Your task to perform on an android device: toggle pop-ups in chrome Image 0: 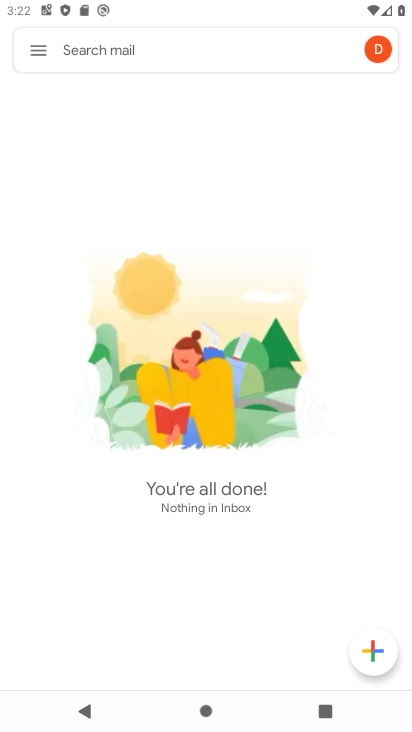
Step 0: press home button
Your task to perform on an android device: toggle pop-ups in chrome Image 1: 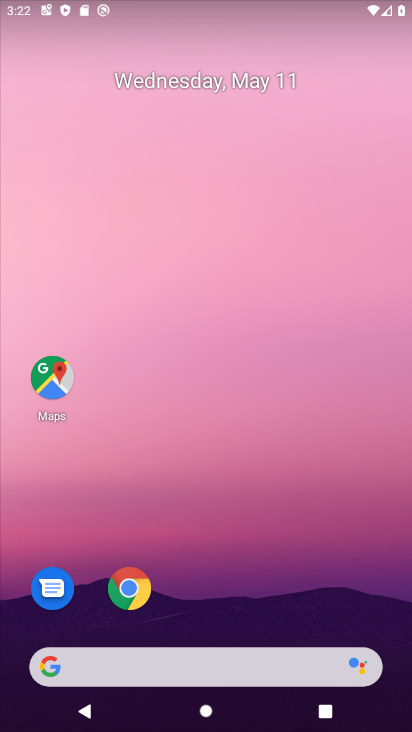
Step 1: click (118, 590)
Your task to perform on an android device: toggle pop-ups in chrome Image 2: 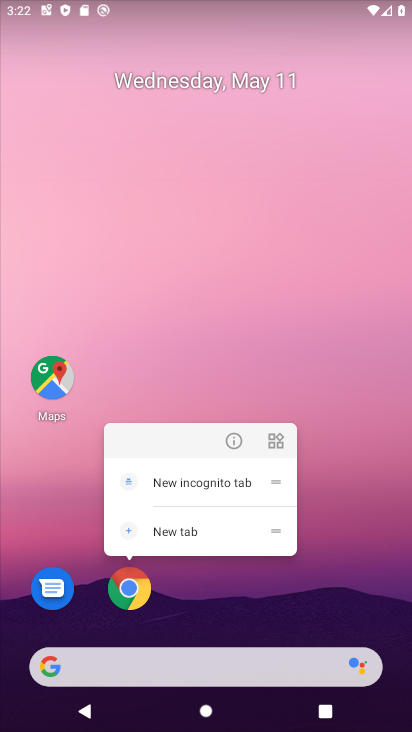
Step 2: click (133, 571)
Your task to perform on an android device: toggle pop-ups in chrome Image 3: 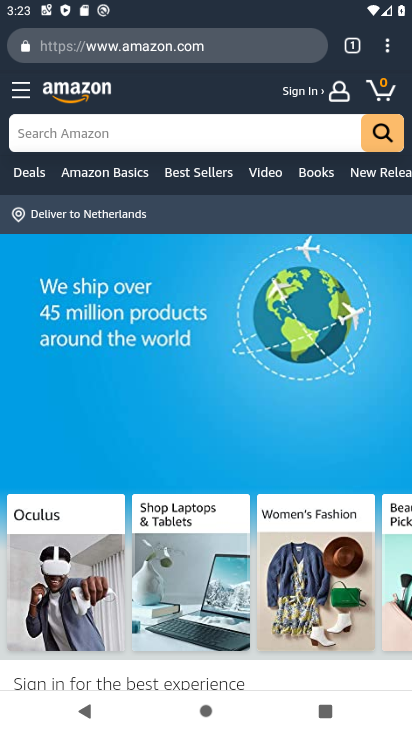
Step 3: click (395, 44)
Your task to perform on an android device: toggle pop-ups in chrome Image 4: 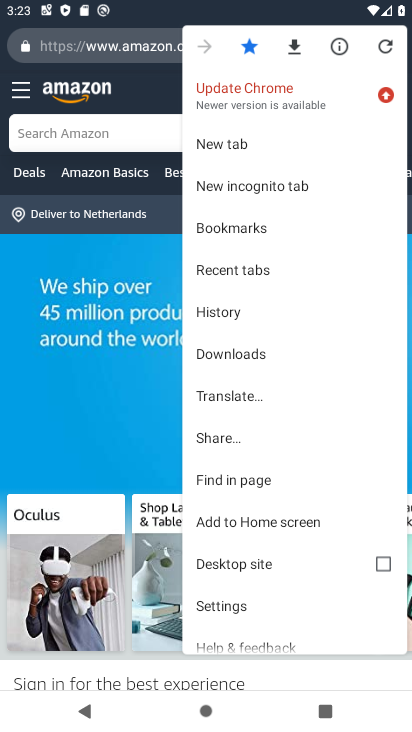
Step 4: click (223, 599)
Your task to perform on an android device: toggle pop-ups in chrome Image 5: 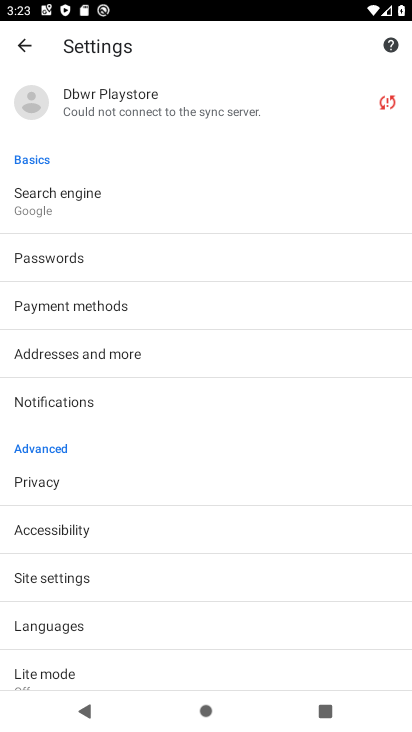
Step 5: click (47, 575)
Your task to perform on an android device: toggle pop-ups in chrome Image 6: 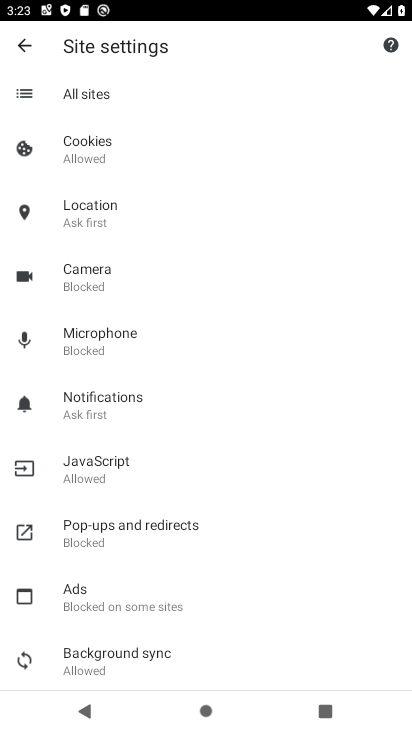
Step 6: click (114, 543)
Your task to perform on an android device: toggle pop-ups in chrome Image 7: 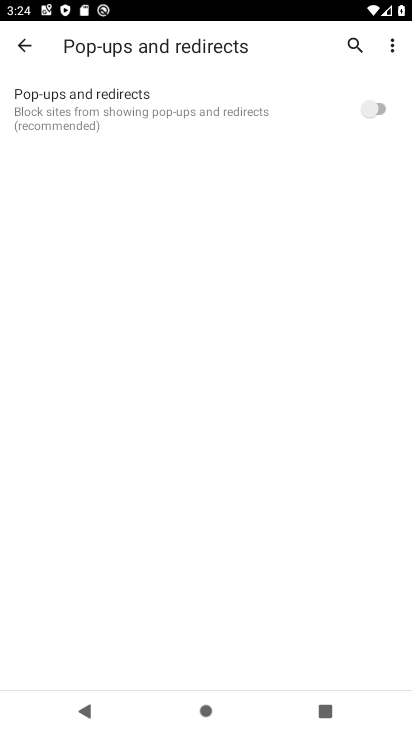
Step 7: click (390, 99)
Your task to perform on an android device: toggle pop-ups in chrome Image 8: 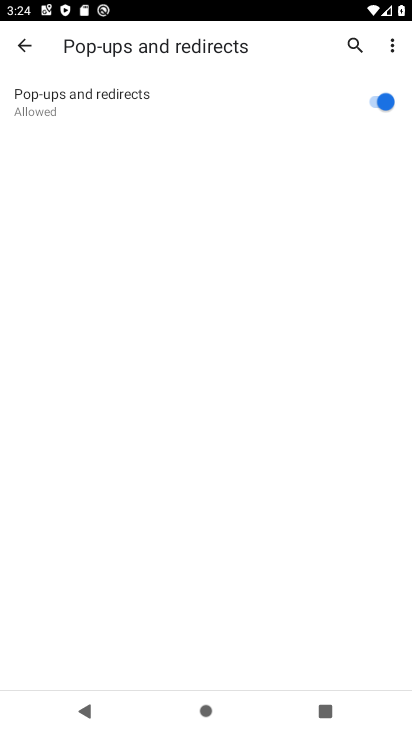
Step 8: task complete